Your task to perform on an android device: Add usb-c to usb-b to the cart on walmart.com Image 0: 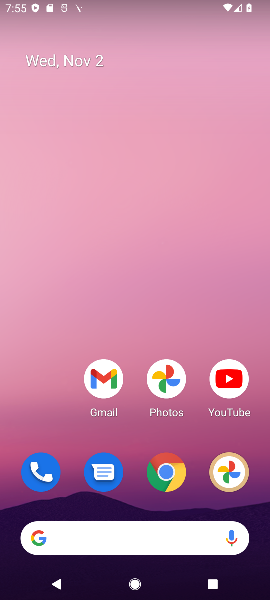
Step 0: click (164, 480)
Your task to perform on an android device: Add usb-c to usb-b to the cart on walmart.com Image 1: 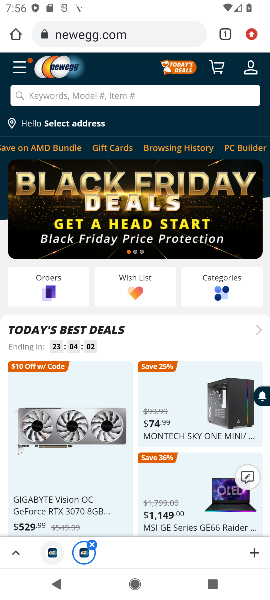
Step 1: click (117, 40)
Your task to perform on an android device: Add usb-c to usb-b to the cart on walmart.com Image 2: 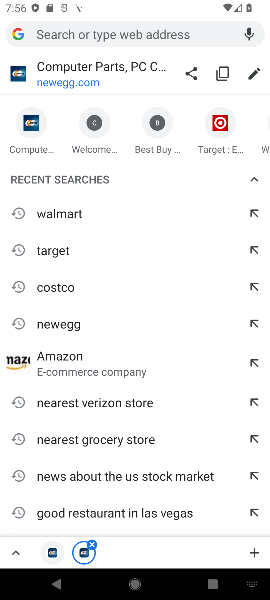
Step 2: click (71, 215)
Your task to perform on an android device: Add usb-c to usb-b to the cart on walmart.com Image 3: 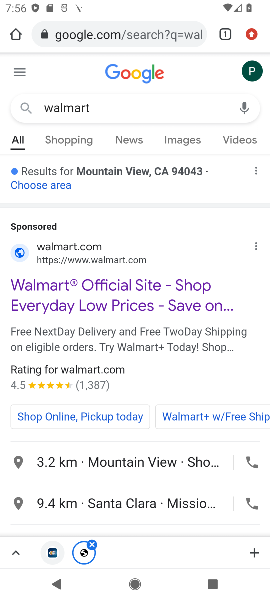
Step 3: click (55, 289)
Your task to perform on an android device: Add usb-c to usb-b to the cart on walmart.com Image 4: 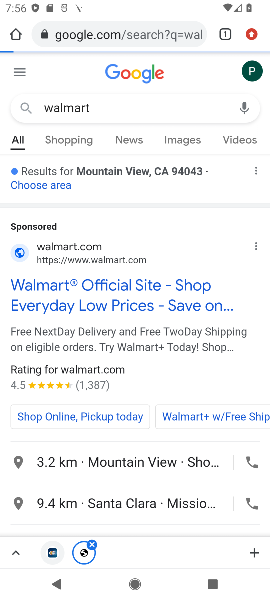
Step 4: click (89, 291)
Your task to perform on an android device: Add usb-c to usb-b to the cart on walmart.com Image 5: 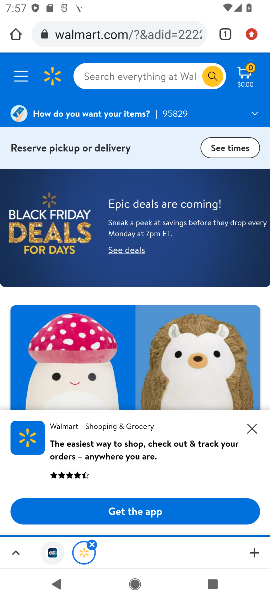
Step 5: click (153, 72)
Your task to perform on an android device: Add usb-c to usb-b to the cart on walmart.com Image 6: 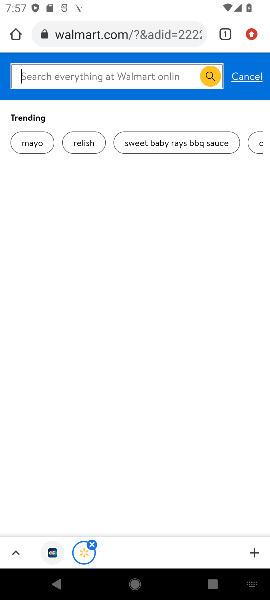
Step 6: type "usb-c to usb-b"
Your task to perform on an android device: Add usb-c to usb-b to the cart on walmart.com Image 7: 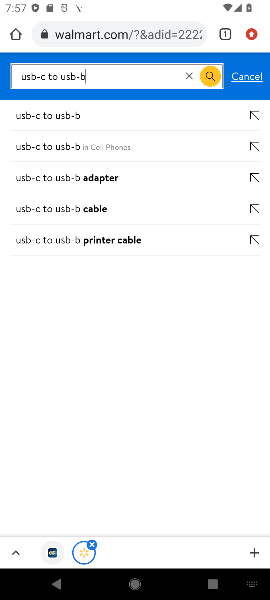
Step 7: click (74, 115)
Your task to perform on an android device: Add usb-c to usb-b to the cart on walmart.com Image 8: 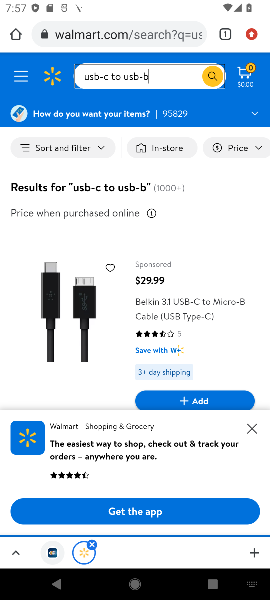
Step 8: click (252, 430)
Your task to perform on an android device: Add usb-c to usb-b to the cart on walmart.com Image 9: 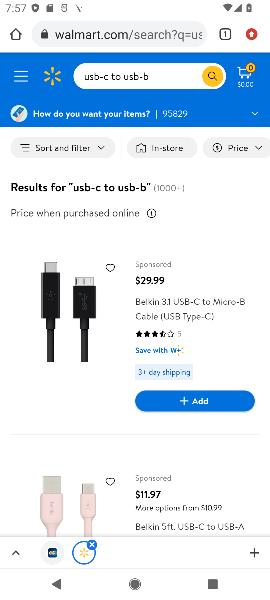
Step 9: click (212, 402)
Your task to perform on an android device: Add usb-c to usb-b to the cart on walmart.com Image 10: 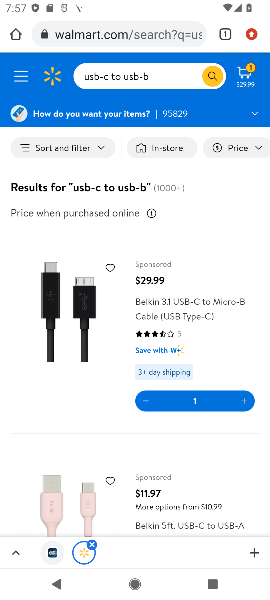
Step 10: task complete